Your task to perform on an android device: Open calendar and show me the first week of next month Image 0: 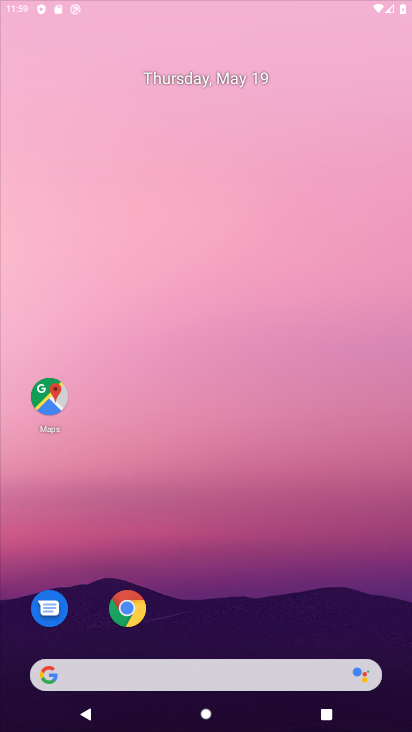
Step 0: drag from (255, 292) to (248, 217)
Your task to perform on an android device: Open calendar and show me the first week of next month Image 1: 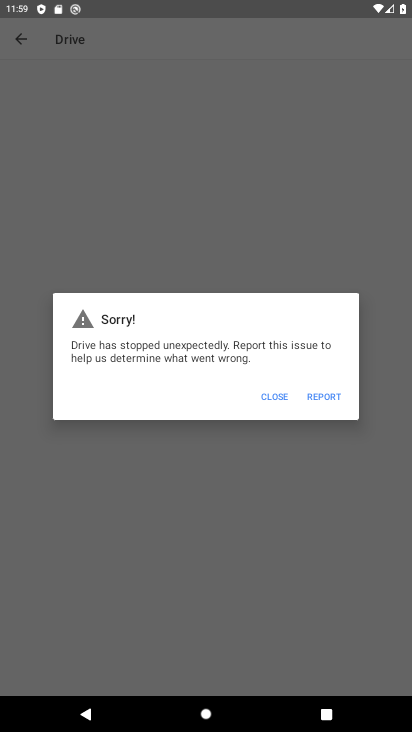
Step 1: press home button
Your task to perform on an android device: Open calendar and show me the first week of next month Image 2: 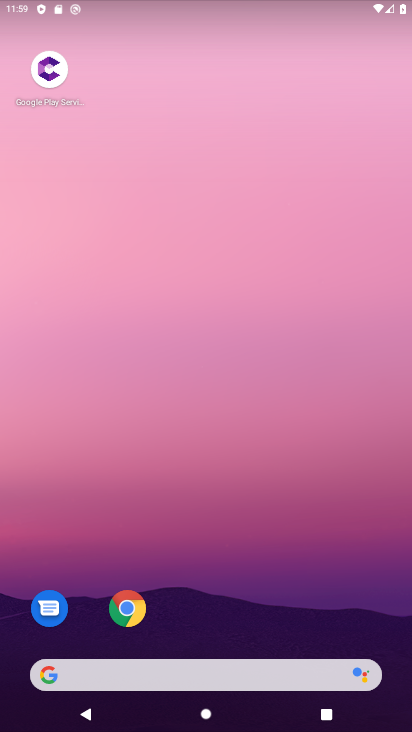
Step 2: drag from (332, 607) to (249, 134)
Your task to perform on an android device: Open calendar and show me the first week of next month Image 3: 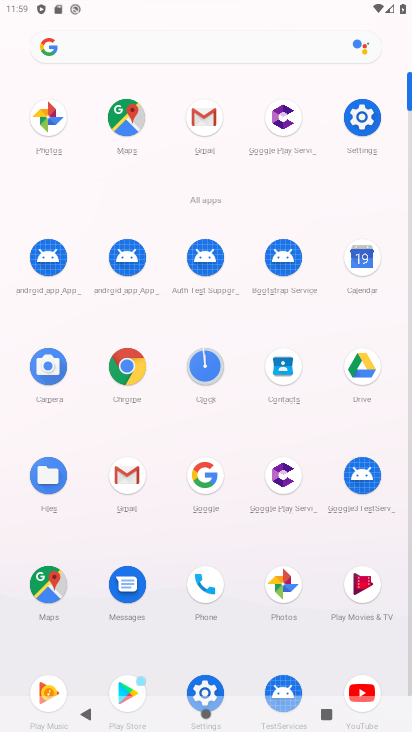
Step 3: click (371, 277)
Your task to perform on an android device: Open calendar and show me the first week of next month Image 4: 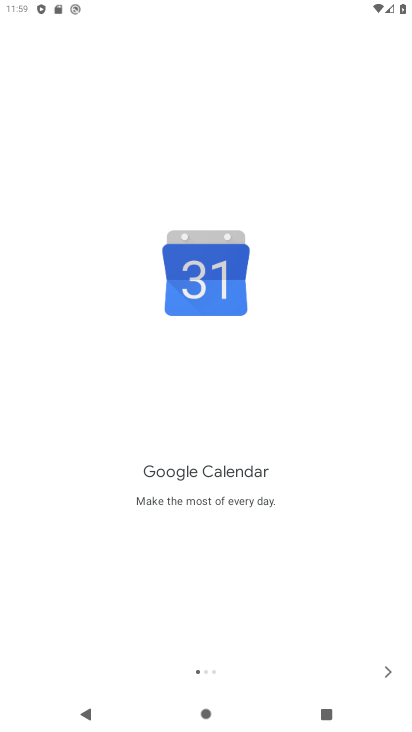
Step 4: click (384, 675)
Your task to perform on an android device: Open calendar and show me the first week of next month Image 5: 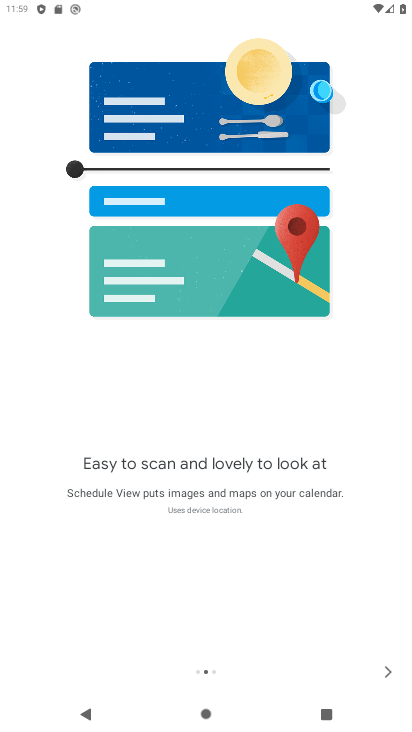
Step 5: click (384, 672)
Your task to perform on an android device: Open calendar and show me the first week of next month Image 6: 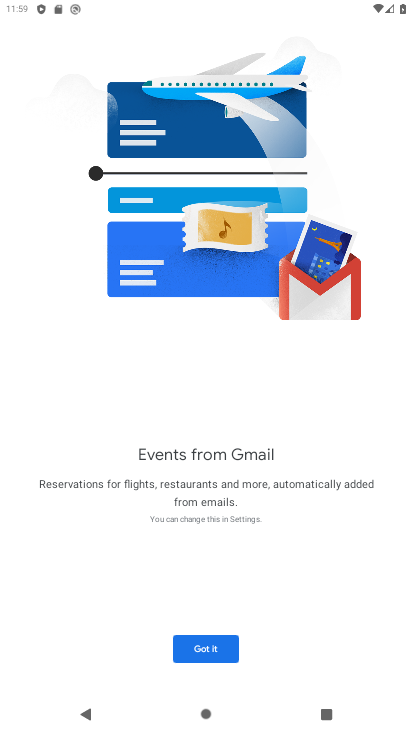
Step 6: click (192, 654)
Your task to perform on an android device: Open calendar and show me the first week of next month Image 7: 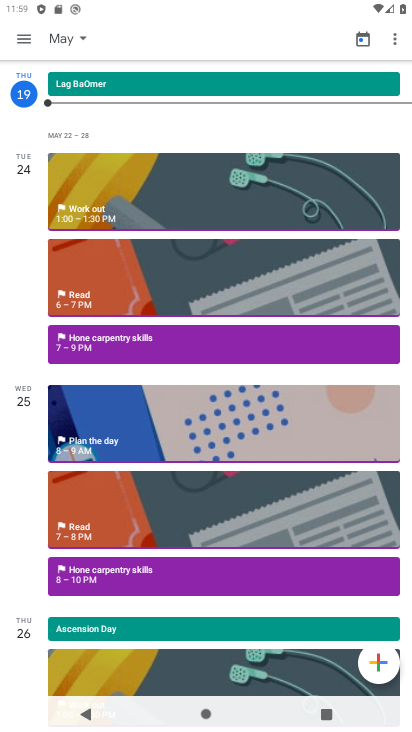
Step 7: click (53, 44)
Your task to perform on an android device: Open calendar and show me the first week of next month Image 8: 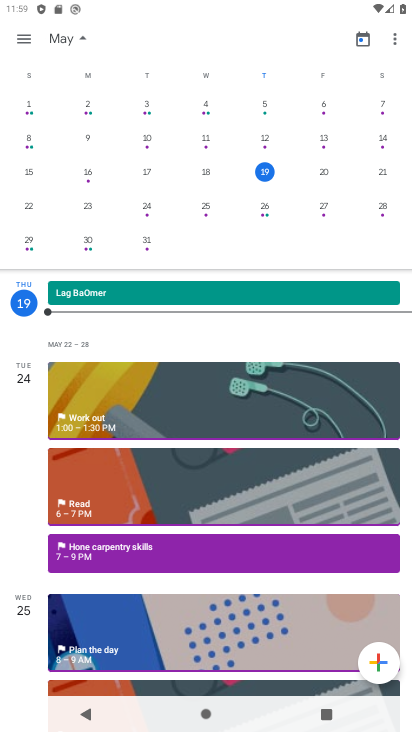
Step 8: drag from (375, 121) to (24, 104)
Your task to perform on an android device: Open calendar and show me the first week of next month Image 9: 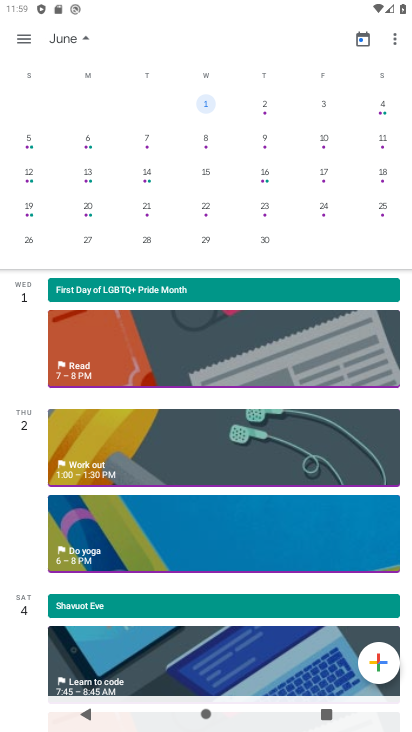
Step 9: click (211, 108)
Your task to perform on an android device: Open calendar and show me the first week of next month Image 10: 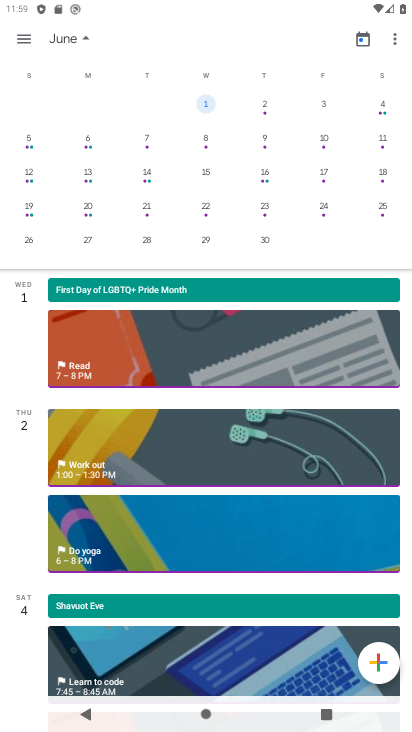
Step 10: click (208, 107)
Your task to perform on an android device: Open calendar and show me the first week of next month Image 11: 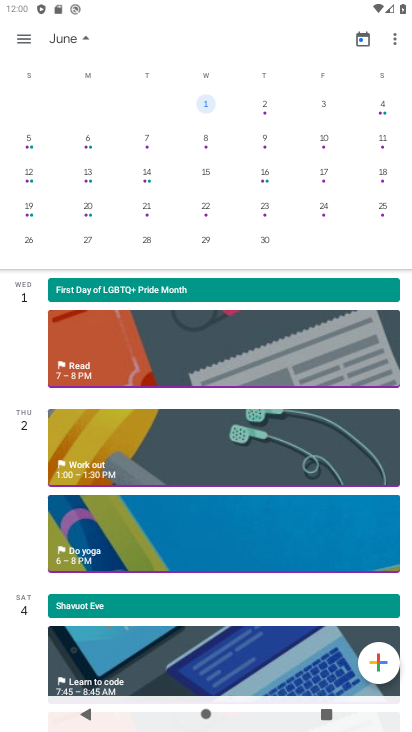
Step 11: task complete